Your task to perform on an android device: Open the phone app and click the voicemail tab. Image 0: 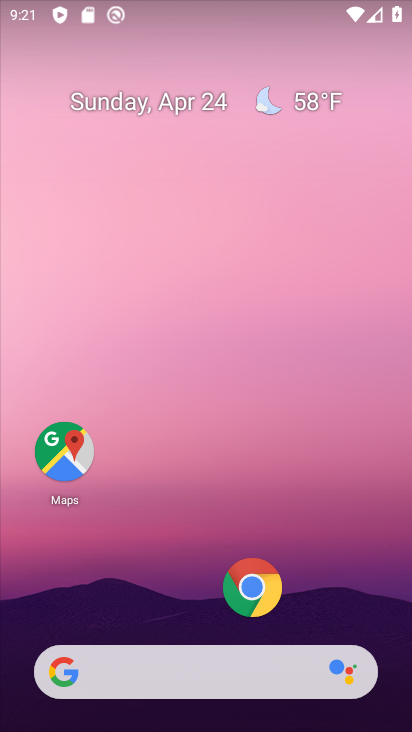
Step 0: drag from (136, 516) to (237, 107)
Your task to perform on an android device: Open the phone app and click the voicemail tab. Image 1: 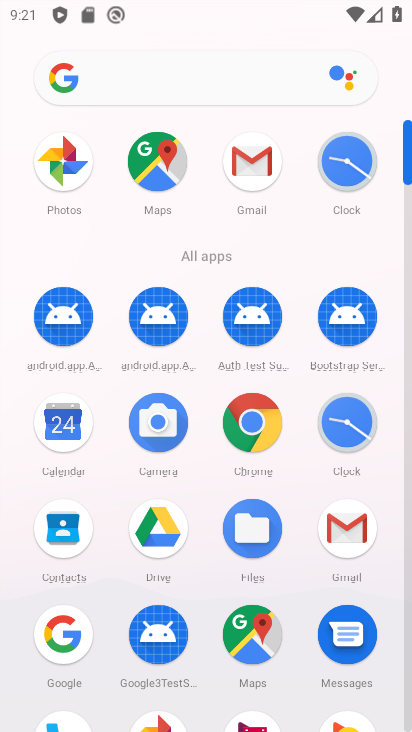
Step 1: drag from (102, 663) to (164, 387)
Your task to perform on an android device: Open the phone app and click the voicemail tab. Image 2: 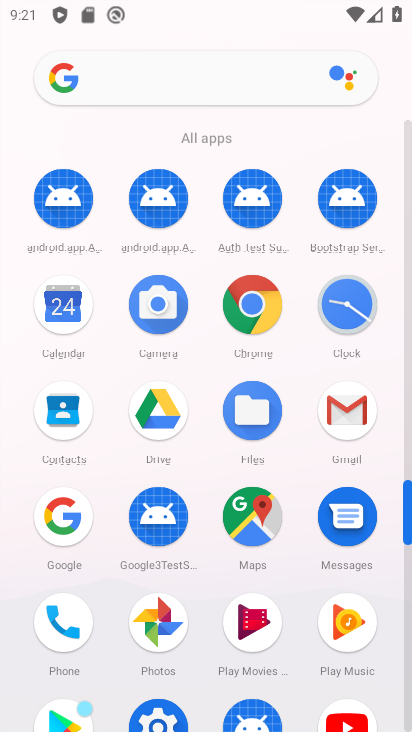
Step 2: click (63, 625)
Your task to perform on an android device: Open the phone app and click the voicemail tab. Image 3: 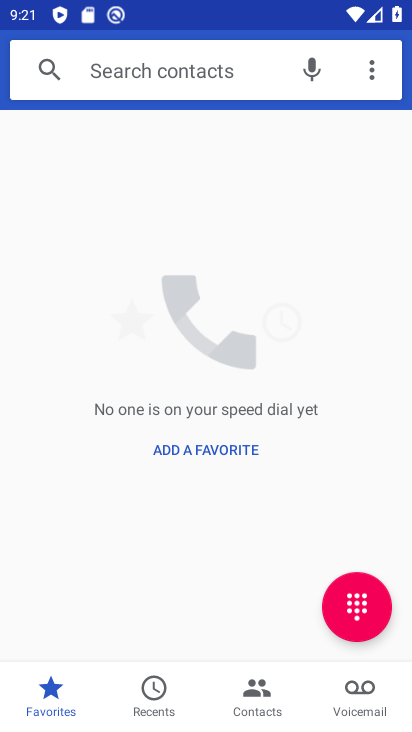
Step 3: click (385, 699)
Your task to perform on an android device: Open the phone app and click the voicemail tab. Image 4: 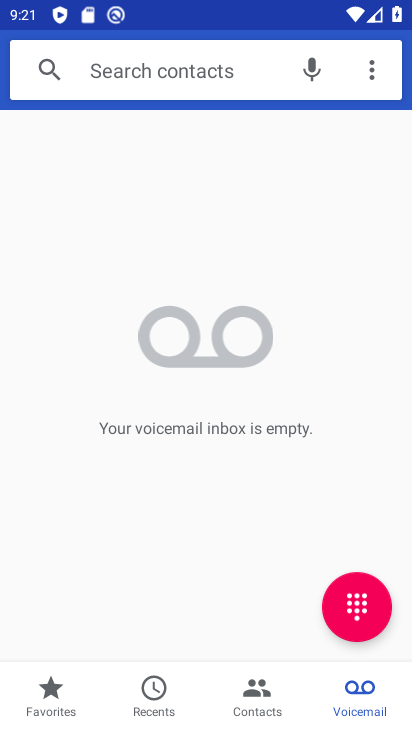
Step 4: click (357, 689)
Your task to perform on an android device: Open the phone app and click the voicemail tab. Image 5: 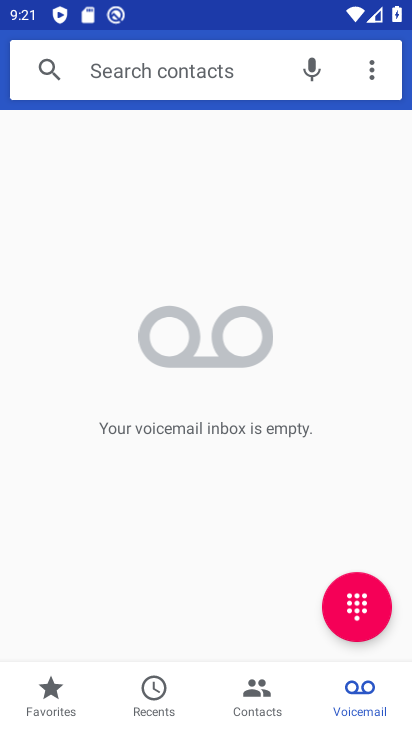
Step 5: task complete